Your task to perform on an android device: turn off priority inbox in the gmail app Image 0: 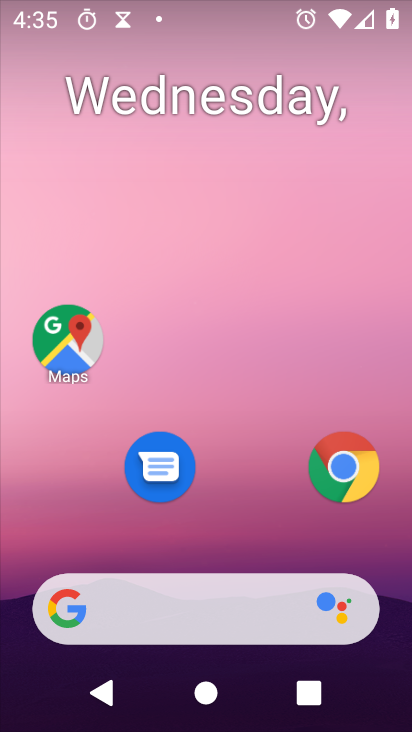
Step 0: drag from (243, 520) to (228, 194)
Your task to perform on an android device: turn off priority inbox in the gmail app Image 1: 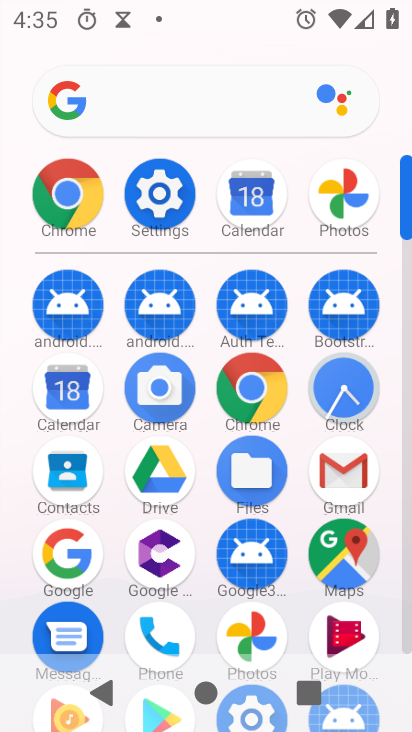
Step 1: click (327, 475)
Your task to perform on an android device: turn off priority inbox in the gmail app Image 2: 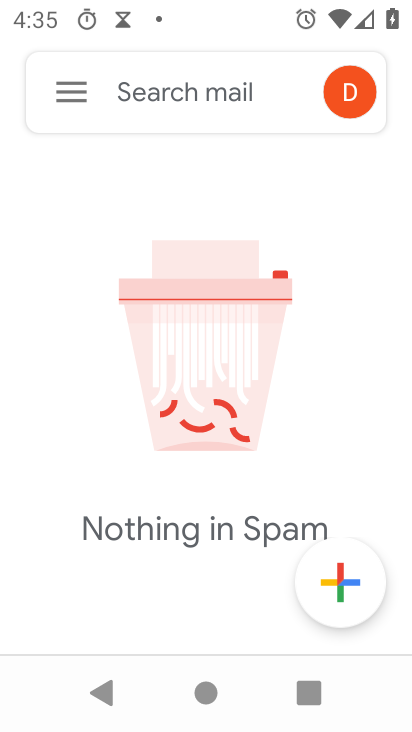
Step 2: click (77, 90)
Your task to perform on an android device: turn off priority inbox in the gmail app Image 3: 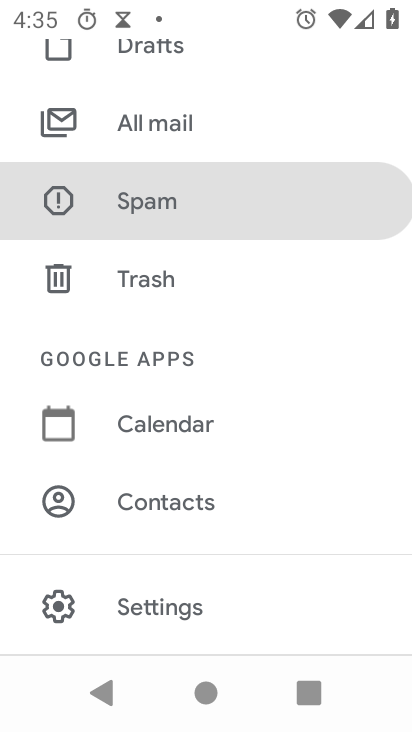
Step 3: click (145, 607)
Your task to perform on an android device: turn off priority inbox in the gmail app Image 4: 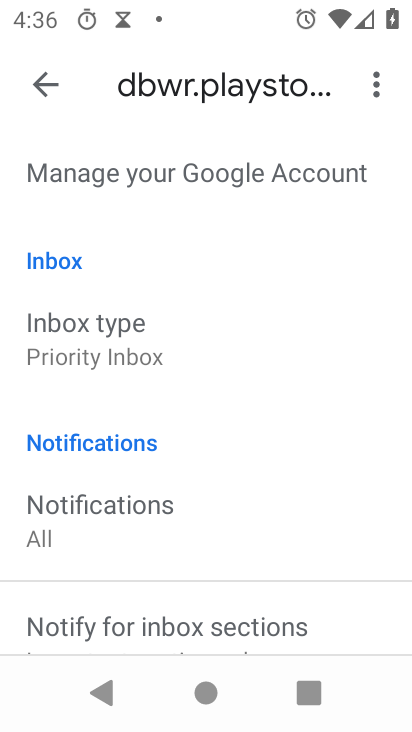
Step 4: click (149, 349)
Your task to perform on an android device: turn off priority inbox in the gmail app Image 5: 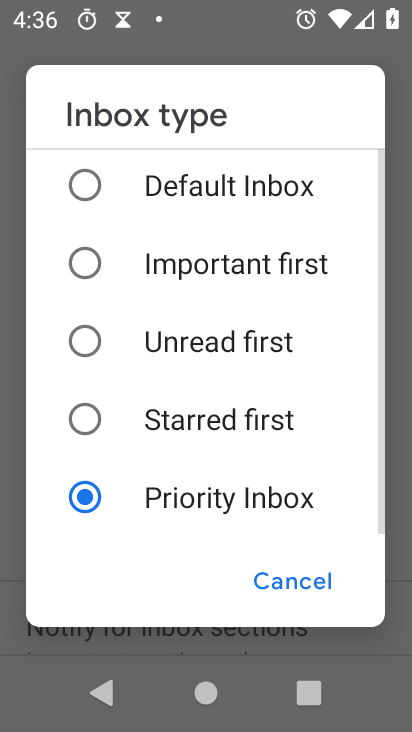
Step 5: click (192, 189)
Your task to perform on an android device: turn off priority inbox in the gmail app Image 6: 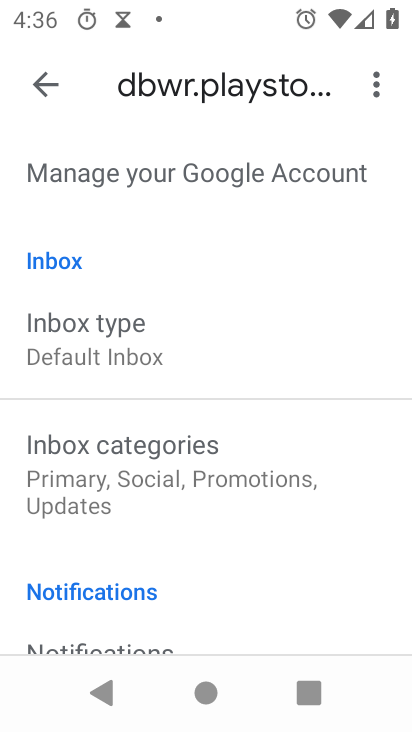
Step 6: task complete